Your task to perform on an android device: change the upload size in google photos Image 0: 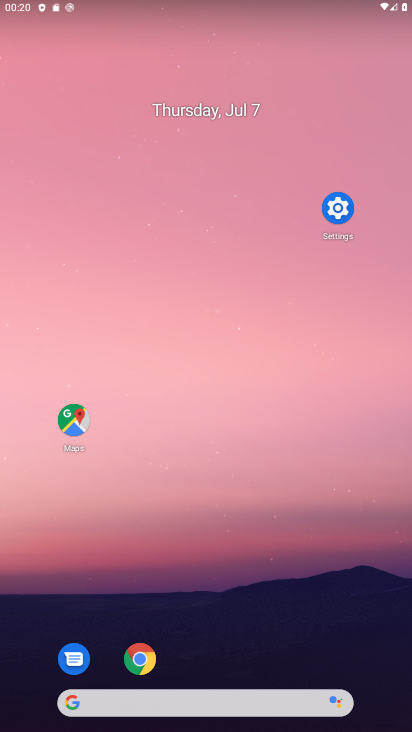
Step 0: drag from (263, 664) to (193, 48)
Your task to perform on an android device: change the upload size in google photos Image 1: 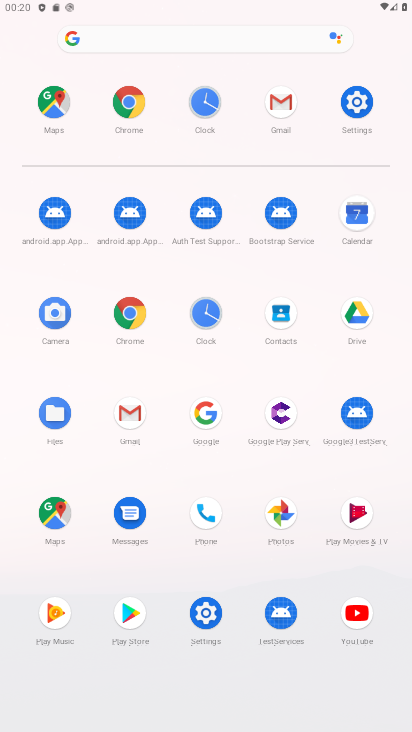
Step 1: click (279, 520)
Your task to perform on an android device: change the upload size in google photos Image 2: 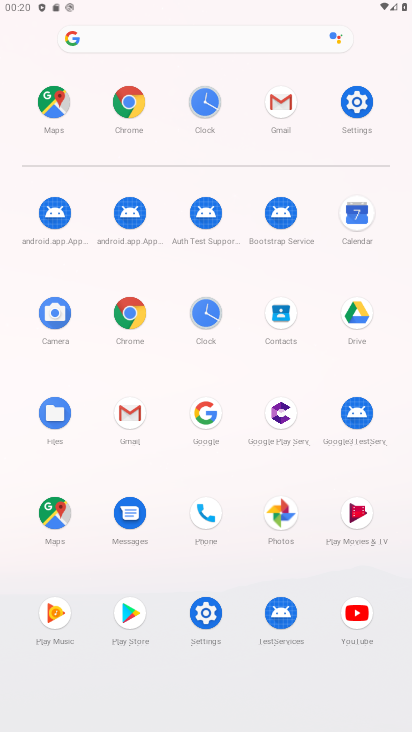
Step 2: click (279, 519)
Your task to perform on an android device: change the upload size in google photos Image 3: 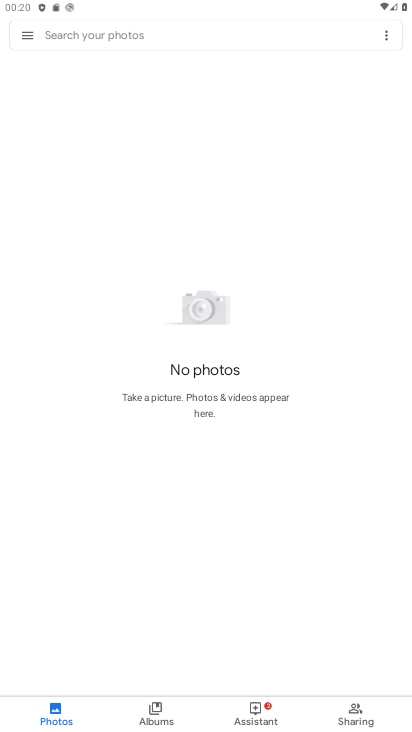
Step 3: click (23, 24)
Your task to perform on an android device: change the upload size in google photos Image 4: 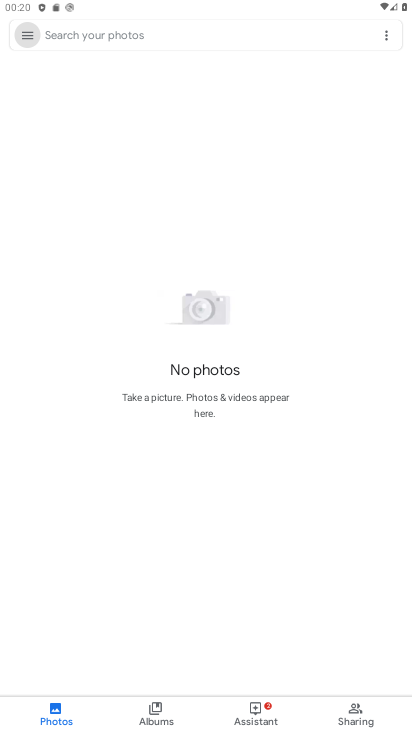
Step 4: click (26, 26)
Your task to perform on an android device: change the upload size in google photos Image 5: 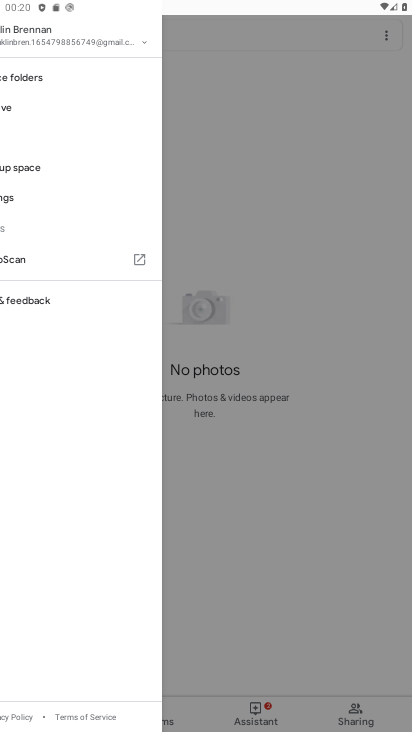
Step 5: click (27, 26)
Your task to perform on an android device: change the upload size in google photos Image 6: 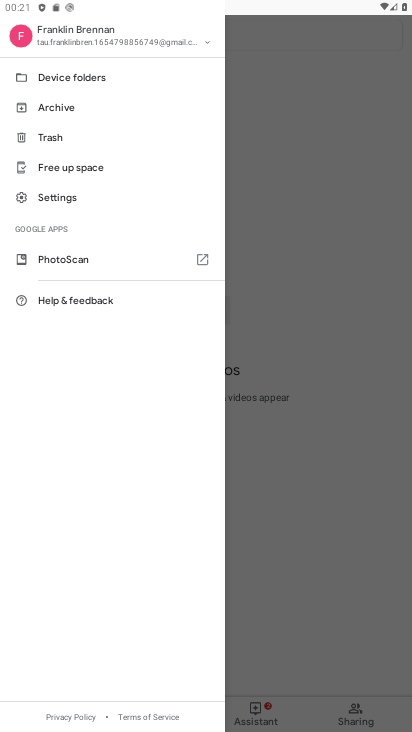
Step 6: click (60, 195)
Your task to perform on an android device: change the upload size in google photos Image 7: 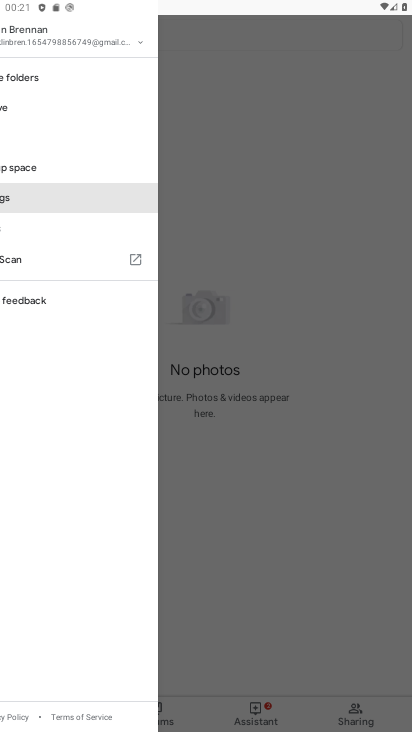
Step 7: click (69, 190)
Your task to perform on an android device: change the upload size in google photos Image 8: 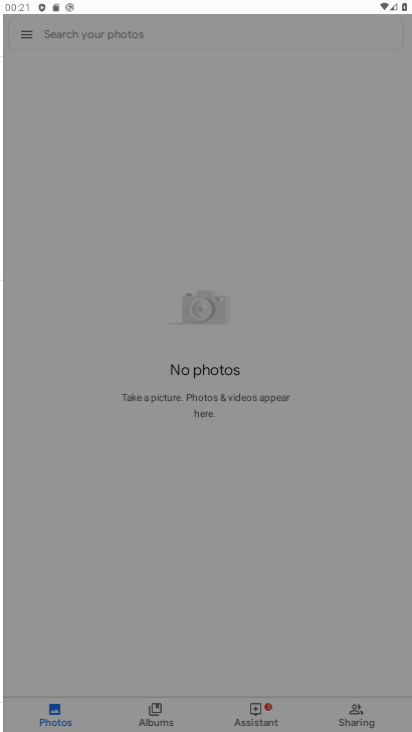
Step 8: click (72, 190)
Your task to perform on an android device: change the upload size in google photos Image 9: 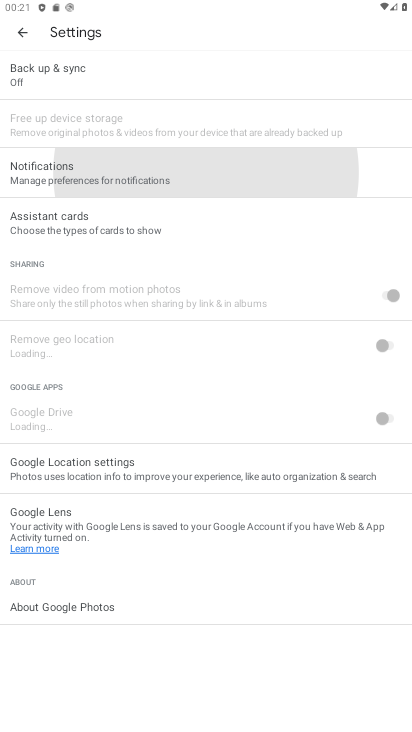
Step 9: click (72, 190)
Your task to perform on an android device: change the upload size in google photos Image 10: 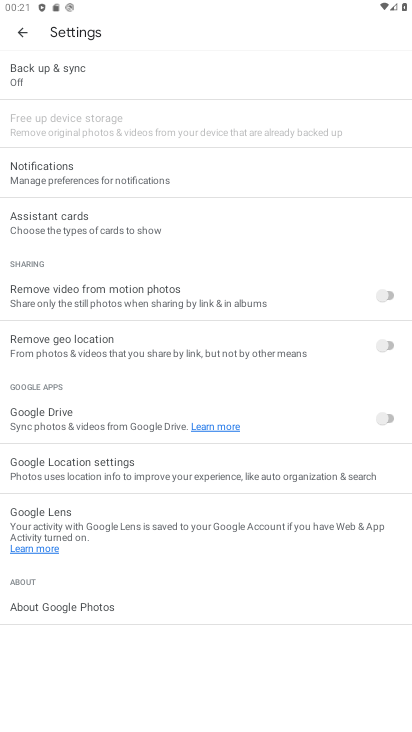
Step 10: task complete